Your task to perform on an android device: Go to battery settings Image 0: 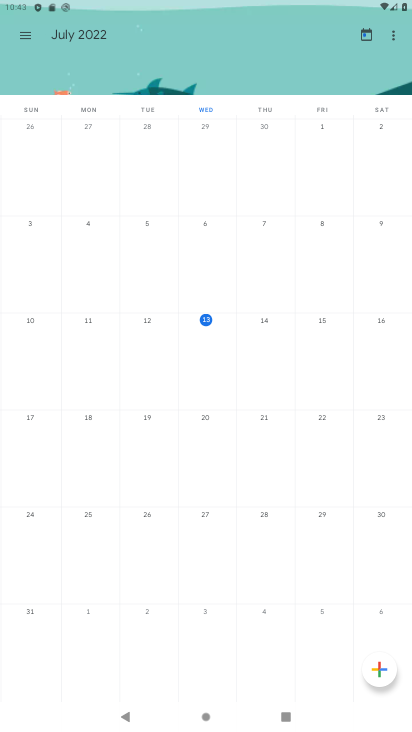
Step 0: press home button
Your task to perform on an android device: Go to battery settings Image 1: 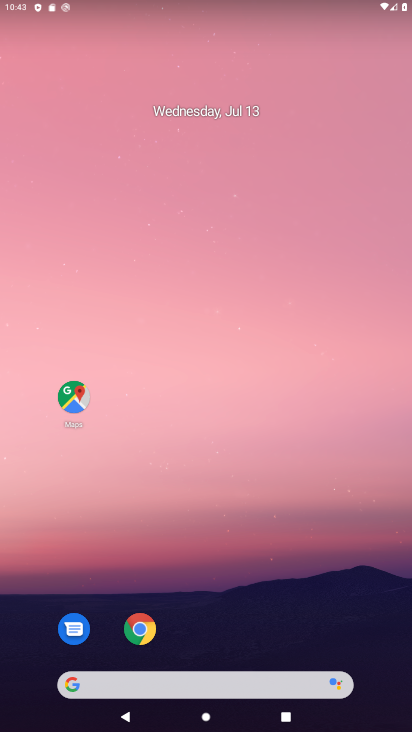
Step 1: drag from (234, 697) to (226, 140)
Your task to perform on an android device: Go to battery settings Image 2: 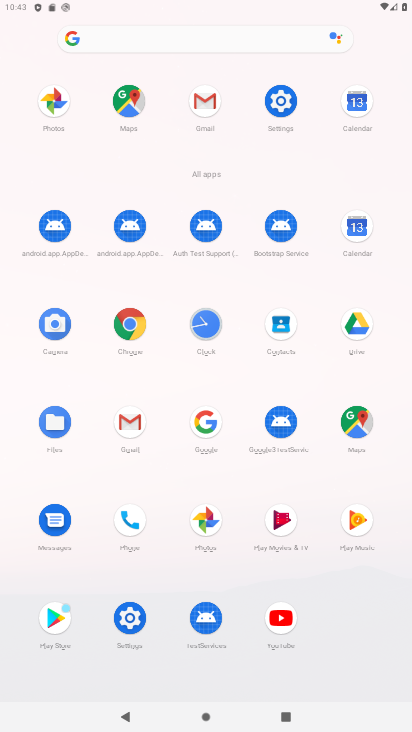
Step 2: click (283, 96)
Your task to perform on an android device: Go to battery settings Image 3: 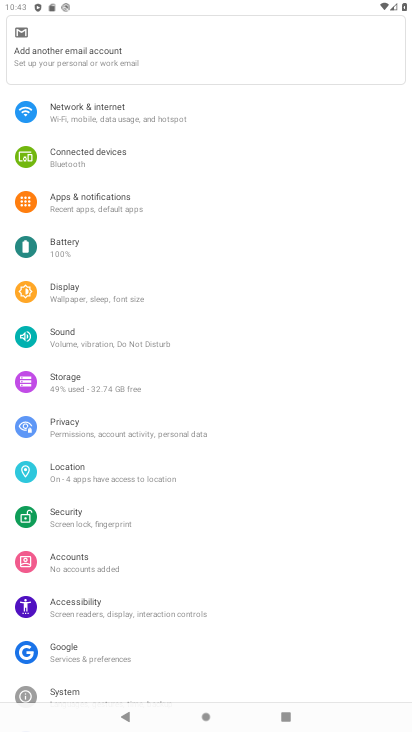
Step 3: click (63, 247)
Your task to perform on an android device: Go to battery settings Image 4: 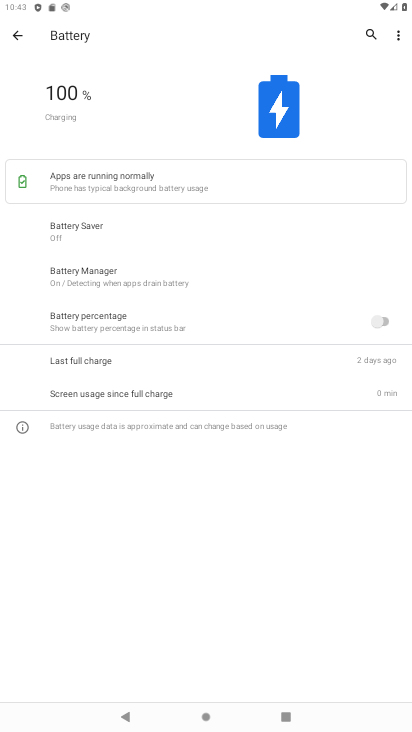
Step 4: task complete